Your task to perform on an android device: Open Reddit.com Image 0: 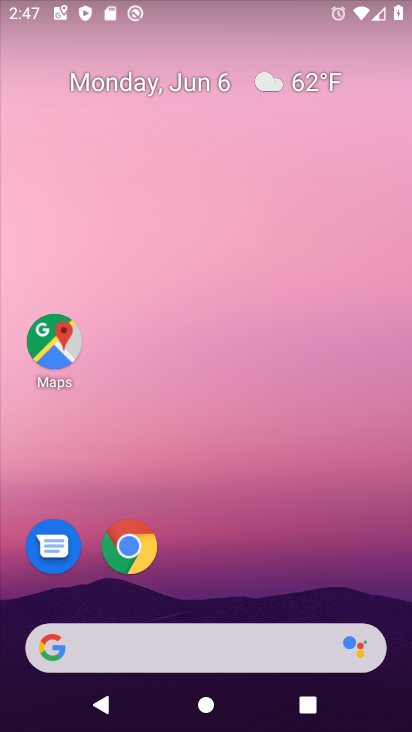
Step 0: click (143, 552)
Your task to perform on an android device: Open Reddit.com Image 1: 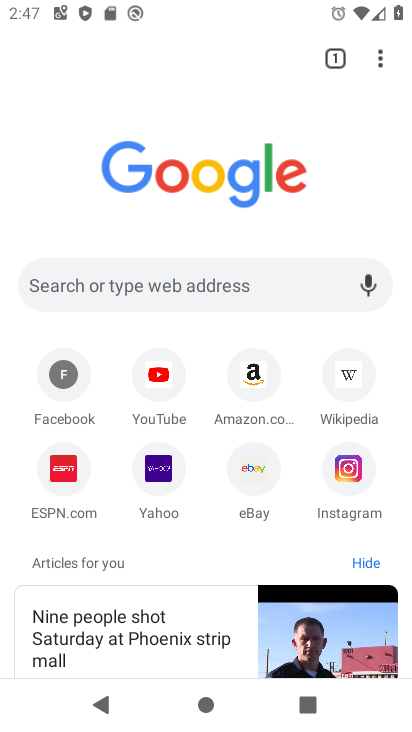
Step 1: click (166, 289)
Your task to perform on an android device: Open Reddit.com Image 2: 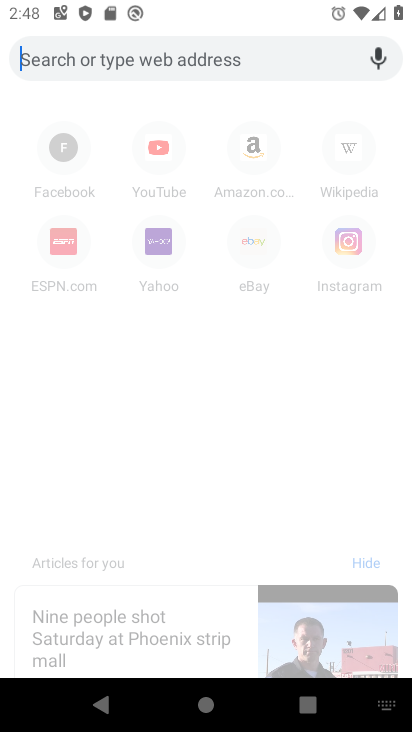
Step 2: type "Reddit.com"
Your task to perform on an android device: Open Reddit.com Image 3: 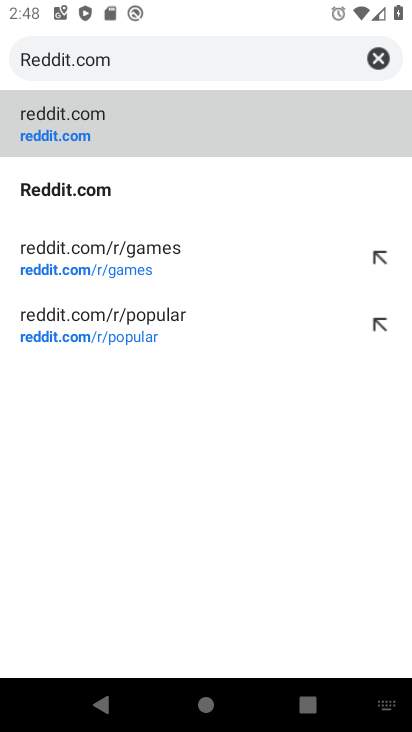
Step 3: click (247, 119)
Your task to perform on an android device: Open Reddit.com Image 4: 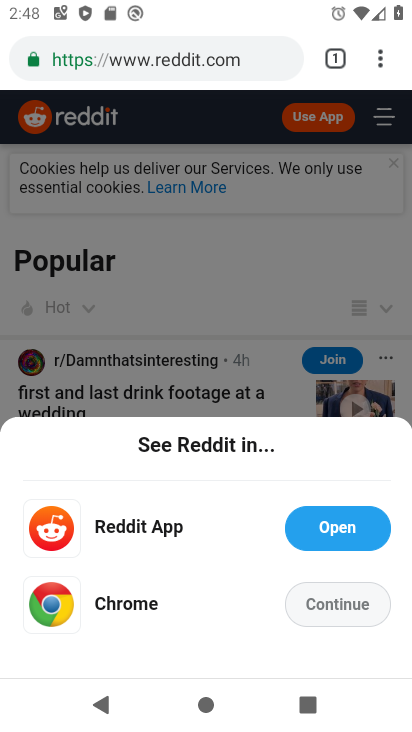
Step 4: click (319, 608)
Your task to perform on an android device: Open Reddit.com Image 5: 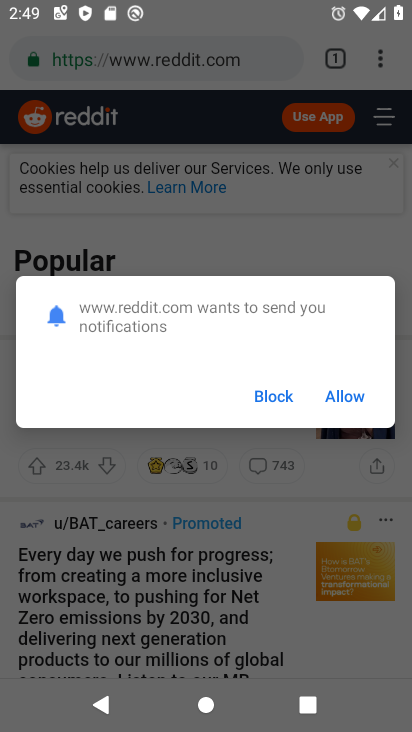
Step 5: click (356, 395)
Your task to perform on an android device: Open Reddit.com Image 6: 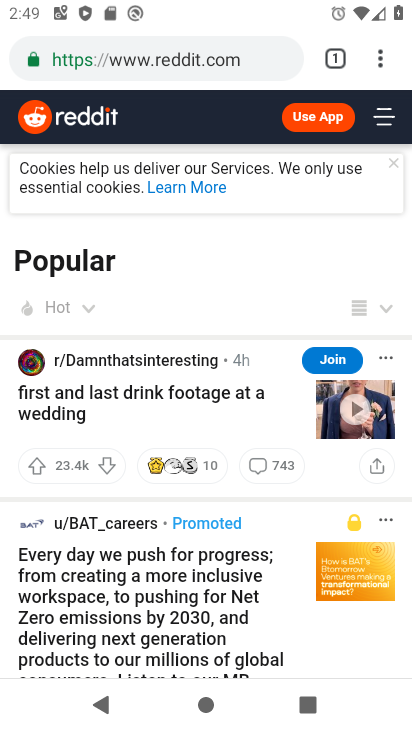
Step 6: task complete